Your task to perform on an android device: change keyboard looks Image 0: 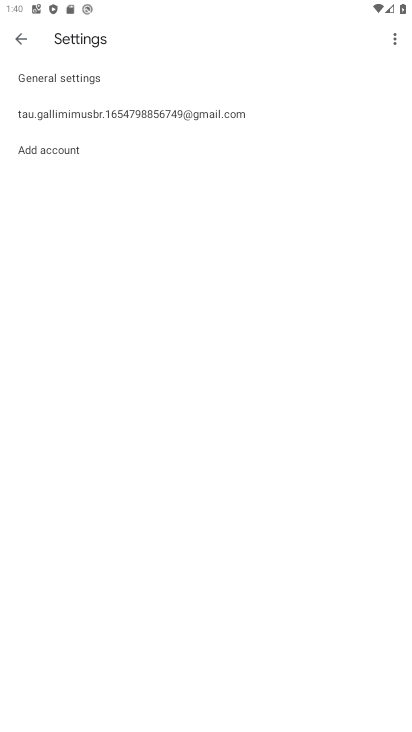
Step 0: press home button
Your task to perform on an android device: change keyboard looks Image 1: 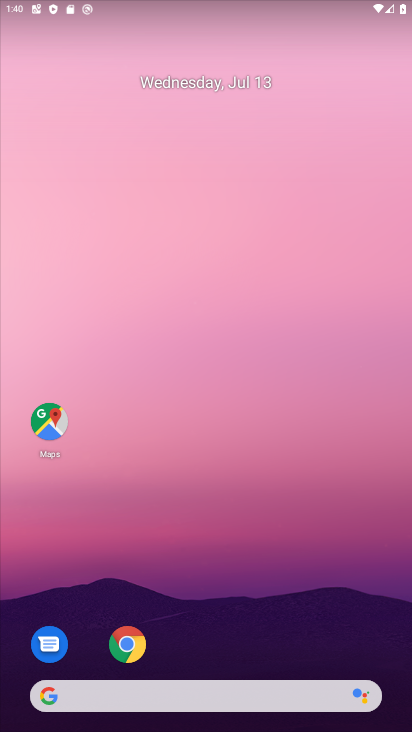
Step 1: drag from (239, 631) to (224, 296)
Your task to perform on an android device: change keyboard looks Image 2: 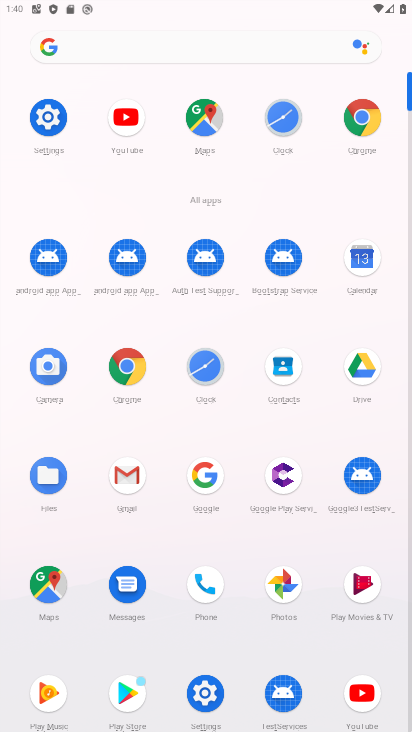
Step 2: click (58, 134)
Your task to perform on an android device: change keyboard looks Image 3: 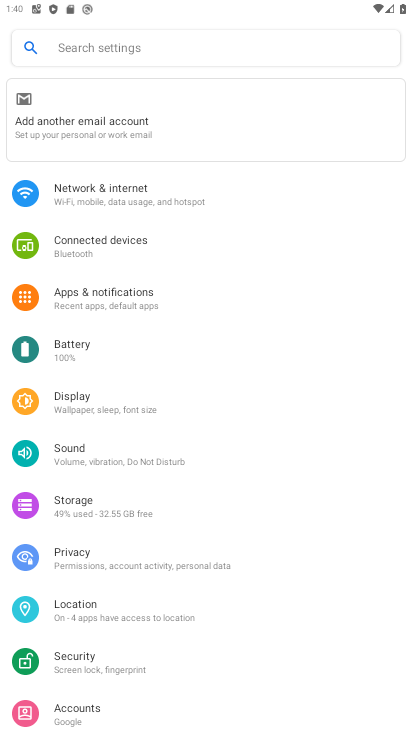
Step 3: drag from (187, 513) to (161, 63)
Your task to perform on an android device: change keyboard looks Image 4: 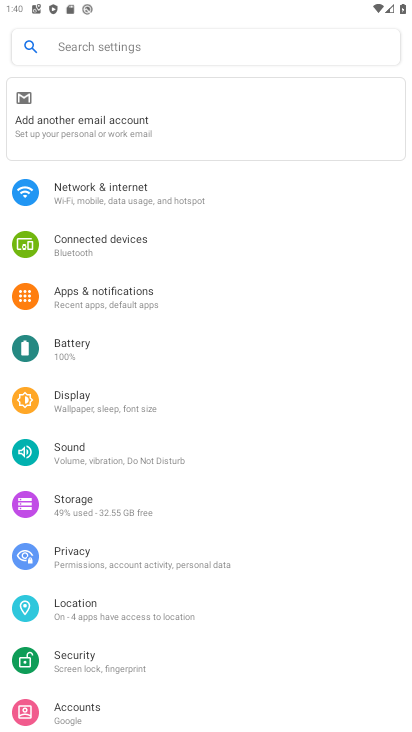
Step 4: drag from (115, 592) to (169, 401)
Your task to perform on an android device: change keyboard looks Image 5: 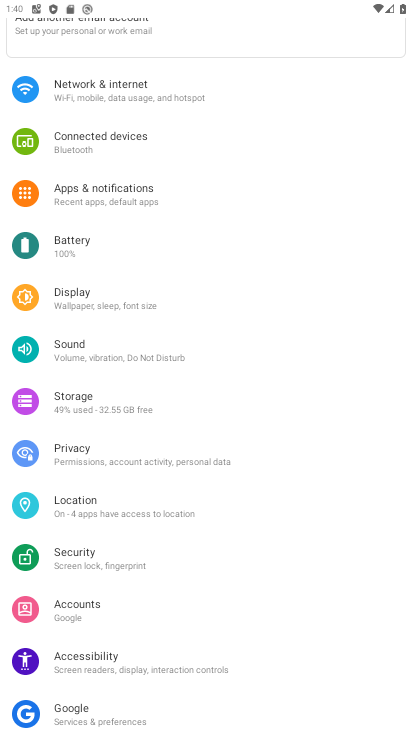
Step 5: drag from (201, 600) to (183, 245)
Your task to perform on an android device: change keyboard looks Image 6: 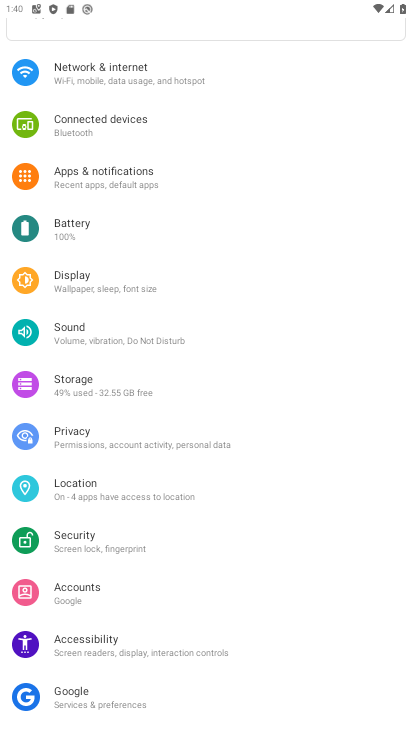
Step 6: drag from (146, 678) to (161, 152)
Your task to perform on an android device: change keyboard looks Image 7: 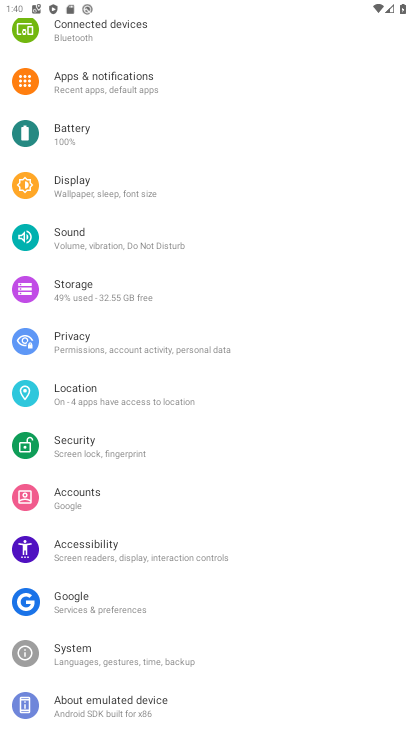
Step 7: click (76, 652)
Your task to perform on an android device: change keyboard looks Image 8: 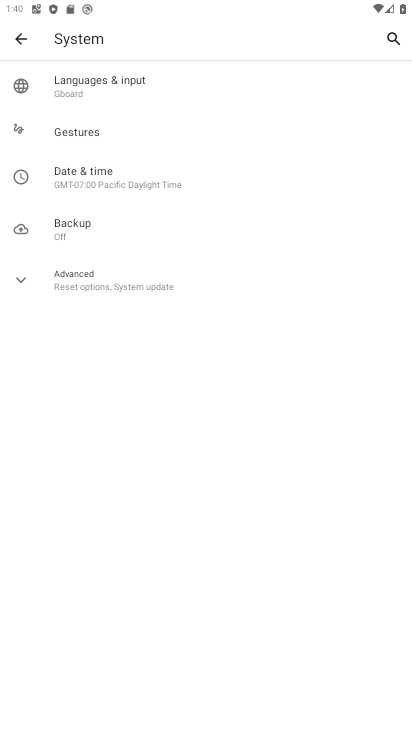
Step 8: click (176, 88)
Your task to perform on an android device: change keyboard looks Image 9: 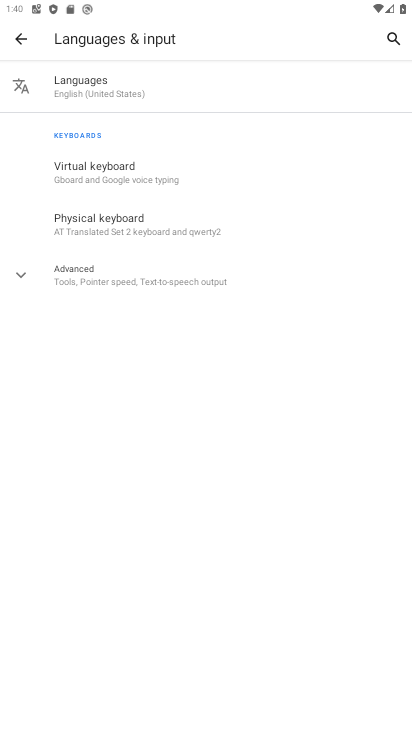
Step 9: click (76, 162)
Your task to perform on an android device: change keyboard looks Image 10: 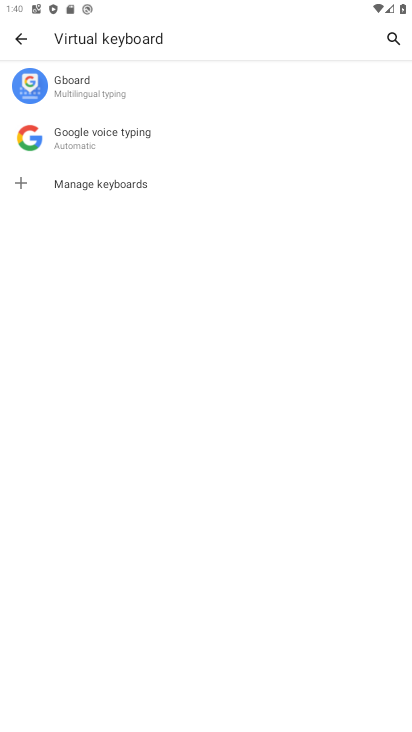
Step 10: click (109, 76)
Your task to perform on an android device: change keyboard looks Image 11: 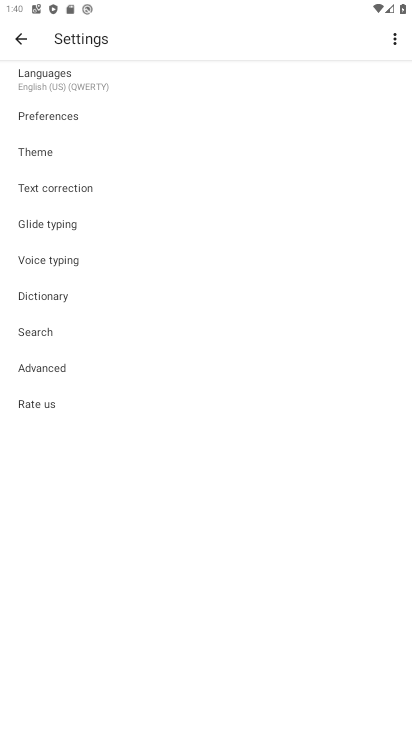
Step 11: click (23, 156)
Your task to perform on an android device: change keyboard looks Image 12: 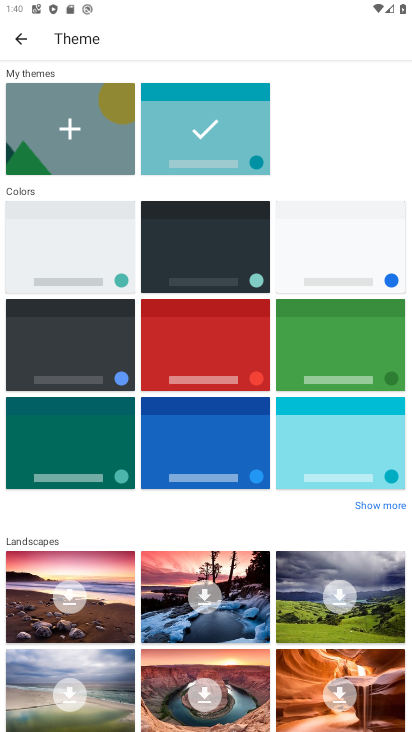
Step 12: click (62, 310)
Your task to perform on an android device: change keyboard looks Image 13: 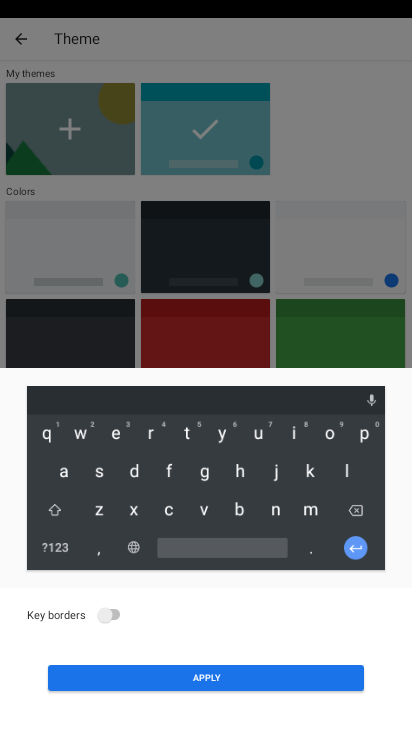
Step 13: click (176, 693)
Your task to perform on an android device: change keyboard looks Image 14: 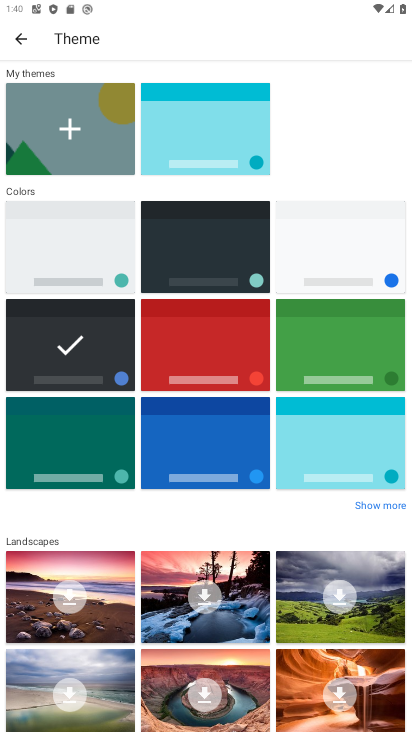
Step 14: task complete